Your task to perform on an android device: move an email to a new category in the gmail app Image 0: 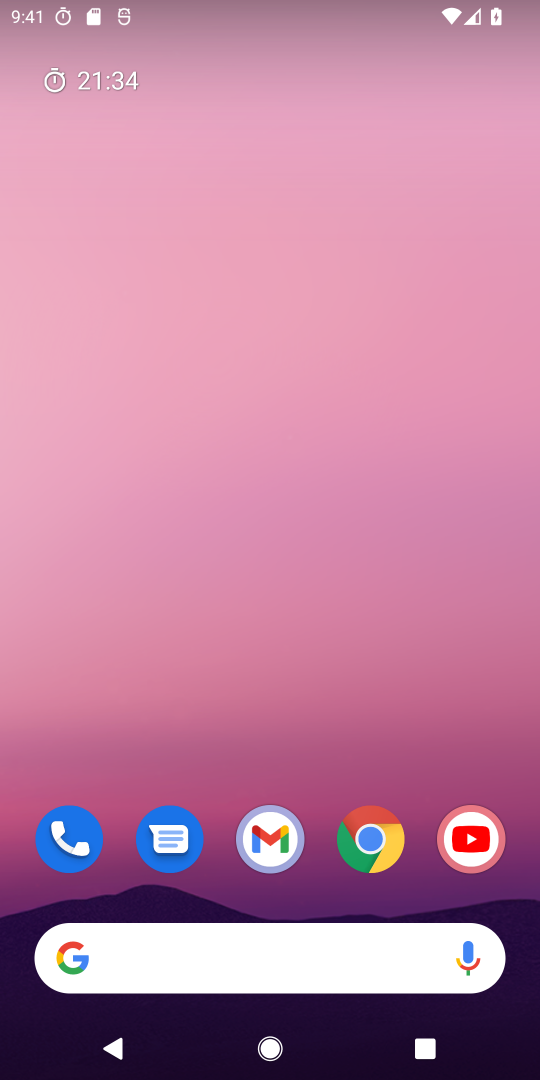
Step 0: press home button
Your task to perform on an android device: move an email to a new category in the gmail app Image 1: 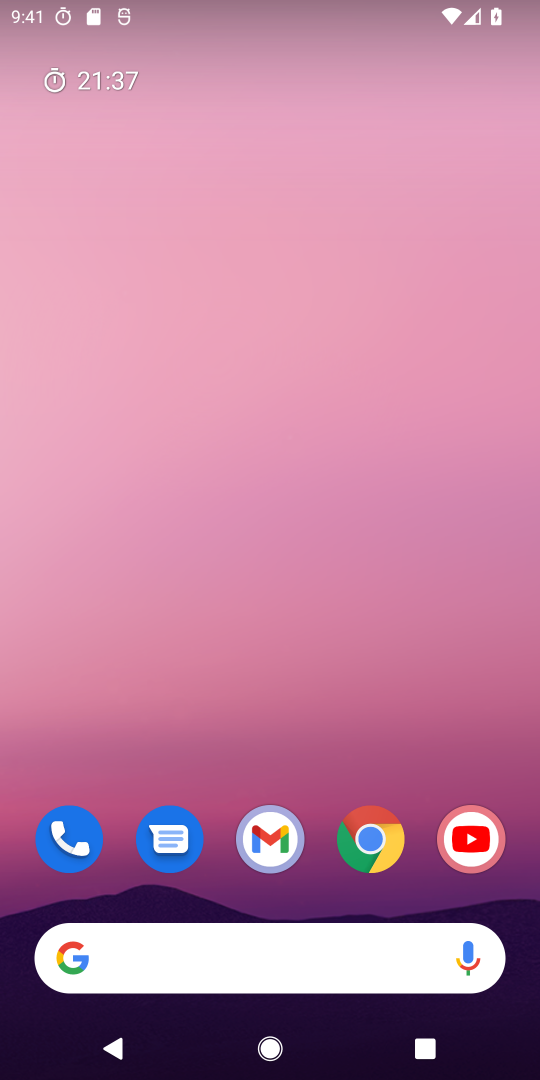
Step 1: click (269, 824)
Your task to perform on an android device: move an email to a new category in the gmail app Image 2: 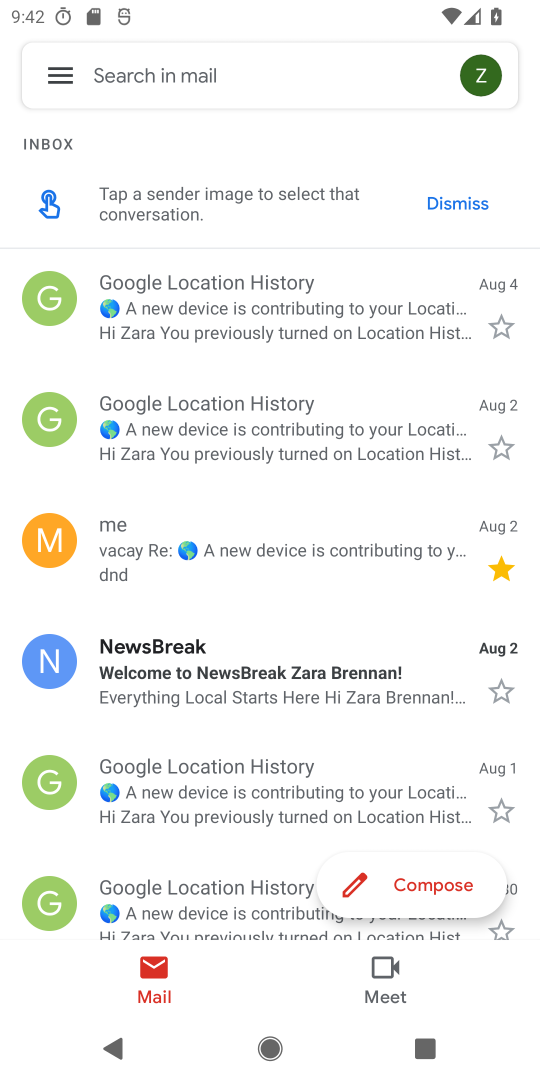
Step 2: click (58, 401)
Your task to perform on an android device: move an email to a new category in the gmail app Image 3: 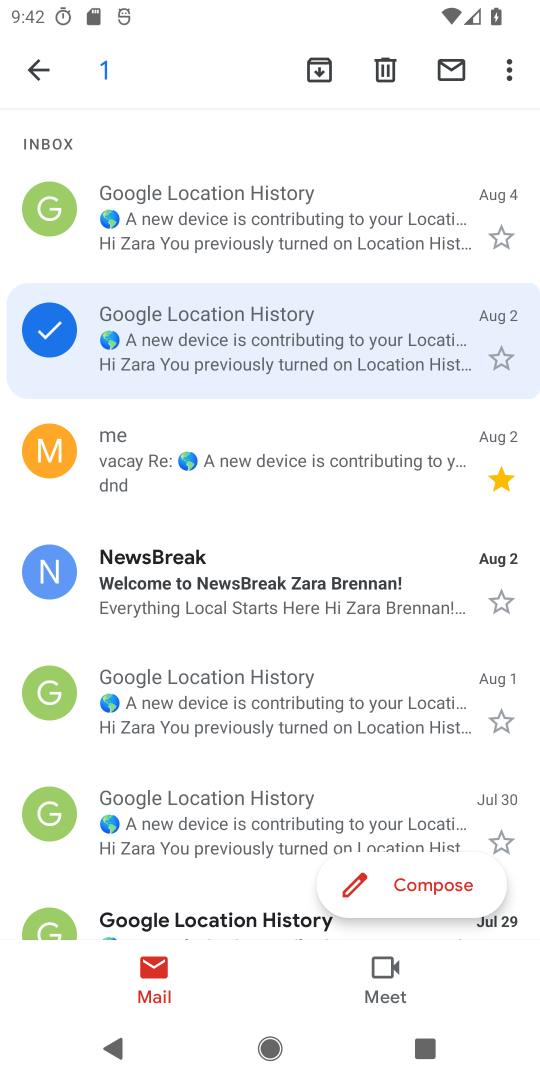
Step 3: click (507, 66)
Your task to perform on an android device: move an email to a new category in the gmail app Image 4: 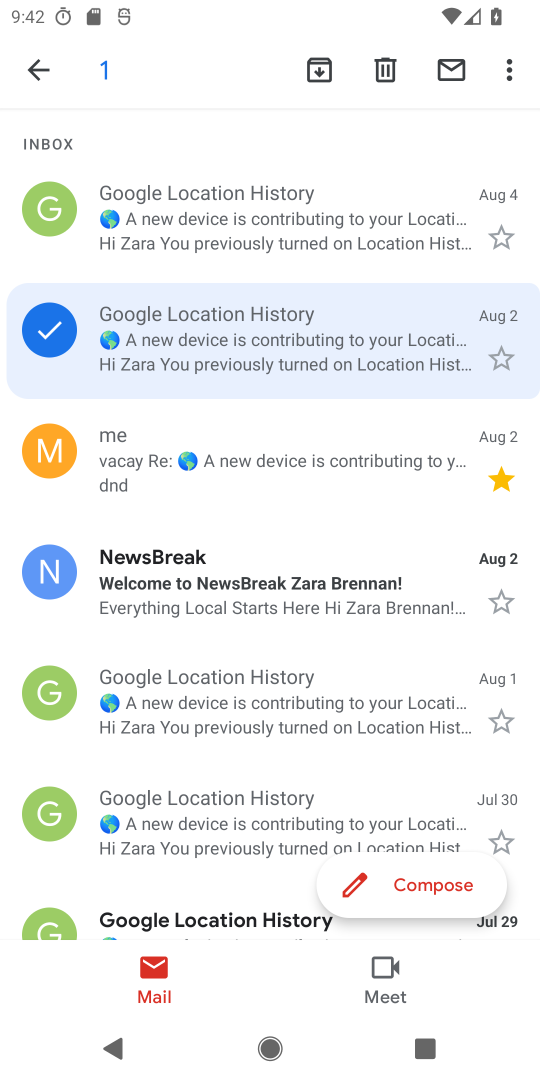
Step 4: click (507, 66)
Your task to perform on an android device: move an email to a new category in the gmail app Image 5: 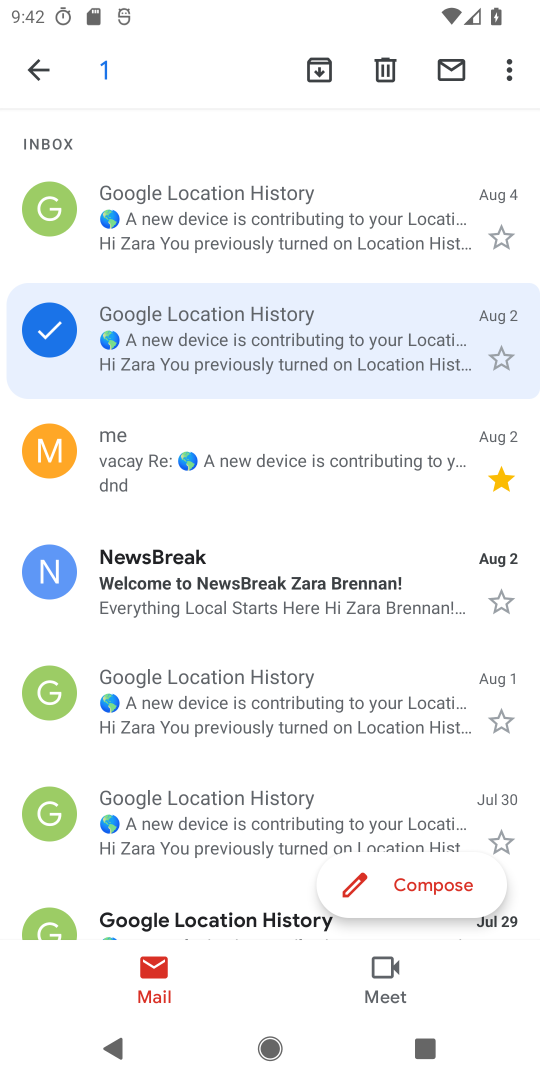
Step 5: click (510, 67)
Your task to perform on an android device: move an email to a new category in the gmail app Image 6: 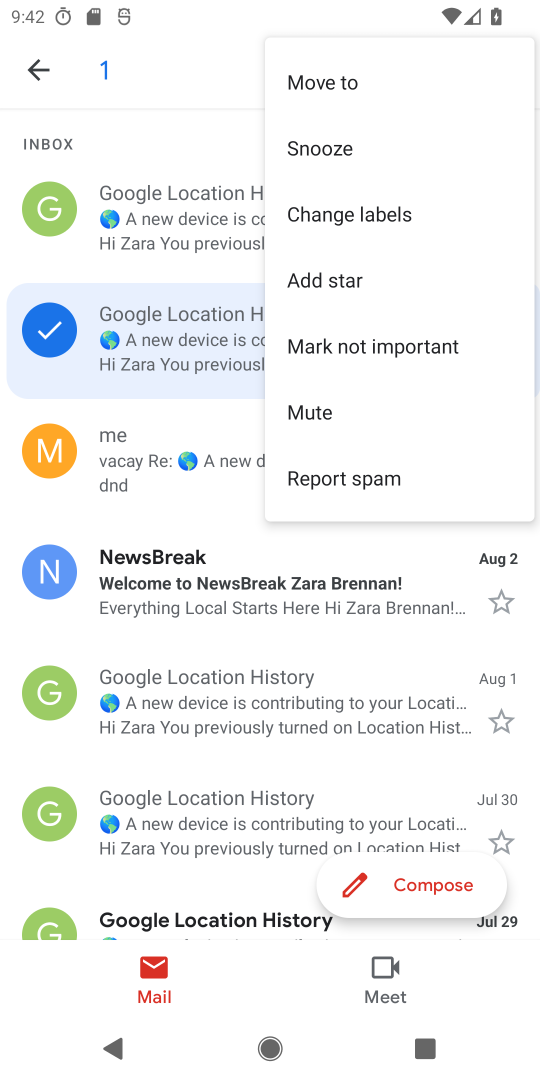
Step 6: click (375, 80)
Your task to perform on an android device: move an email to a new category in the gmail app Image 7: 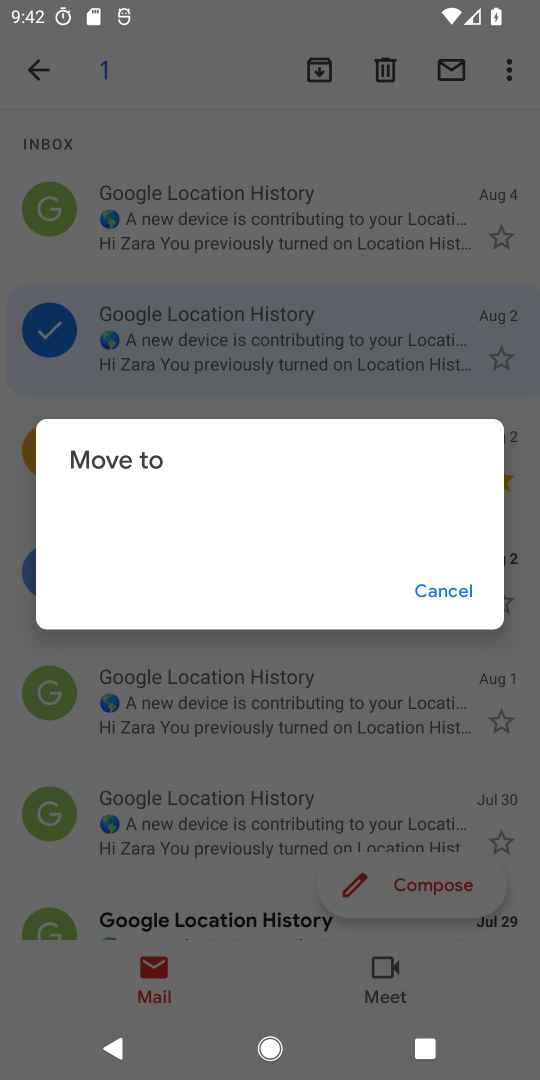
Step 7: task complete